Your task to perform on an android device: Open Google Maps and go to "Timeline" Image 0: 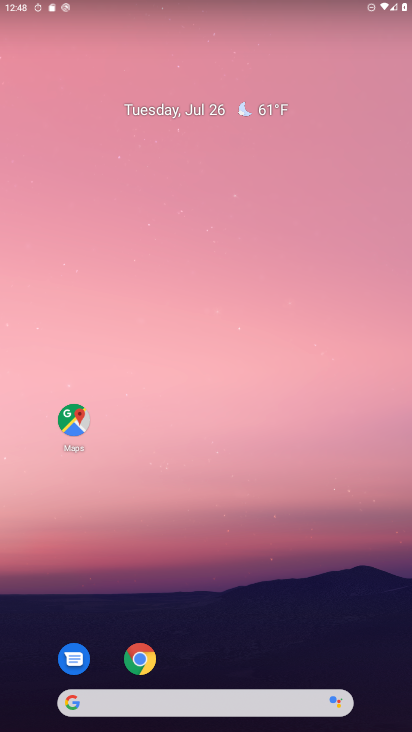
Step 0: click (84, 412)
Your task to perform on an android device: Open Google Maps and go to "Timeline" Image 1: 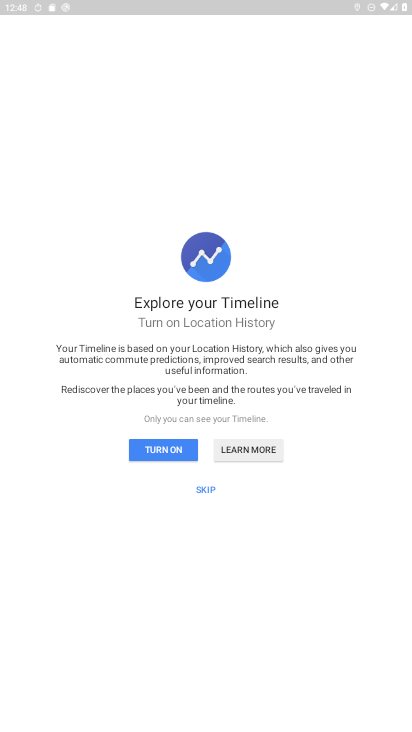
Step 1: press home button
Your task to perform on an android device: Open Google Maps and go to "Timeline" Image 2: 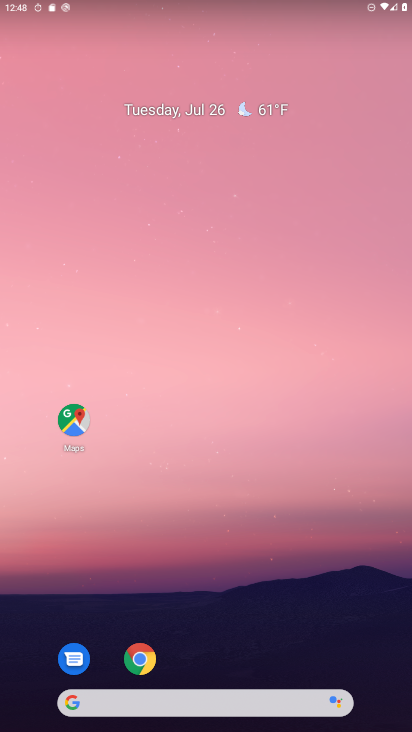
Step 2: click (61, 419)
Your task to perform on an android device: Open Google Maps and go to "Timeline" Image 3: 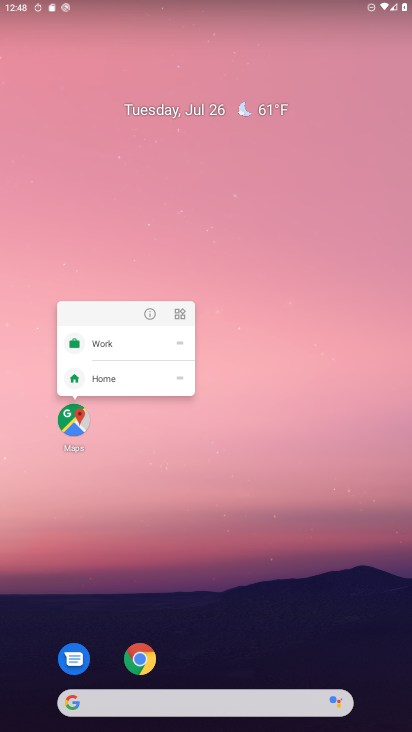
Step 3: click (68, 414)
Your task to perform on an android device: Open Google Maps and go to "Timeline" Image 4: 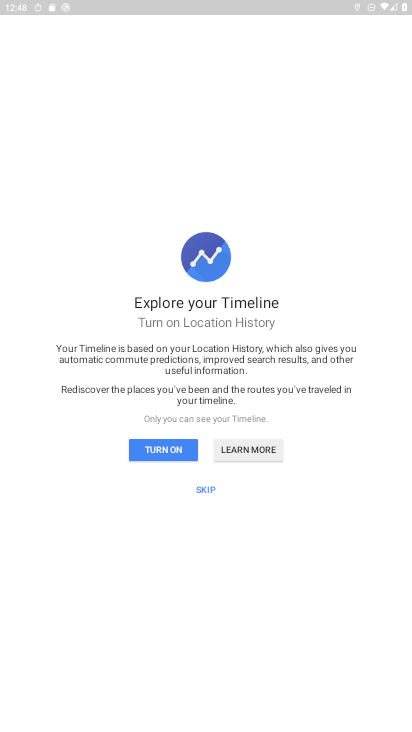
Step 4: click (214, 488)
Your task to perform on an android device: Open Google Maps and go to "Timeline" Image 5: 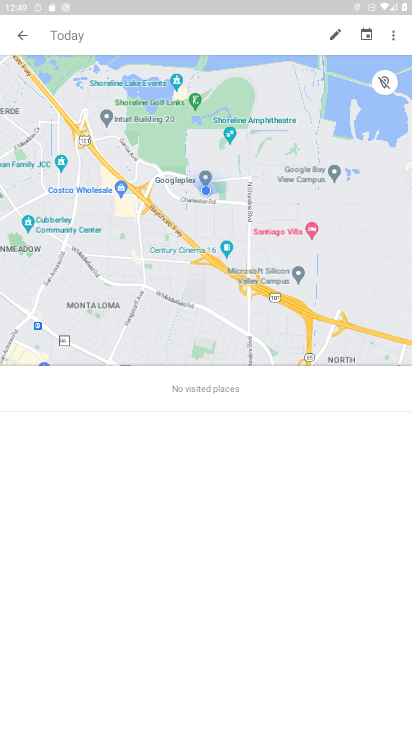
Step 5: task complete